Your task to perform on an android device: Open the map Image 0: 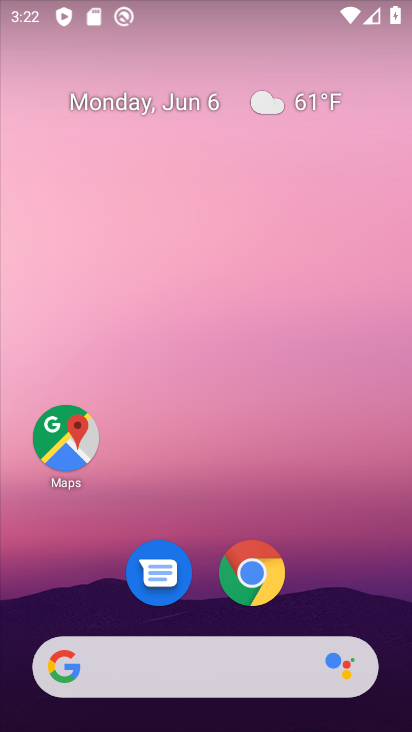
Step 0: click (84, 459)
Your task to perform on an android device: Open the map Image 1: 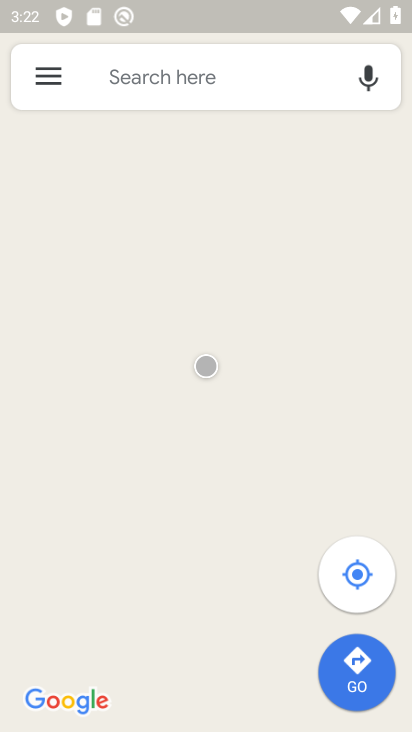
Step 1: task complete